Your task to perform on an android device: see sites visited before in the chrome app Image 0: 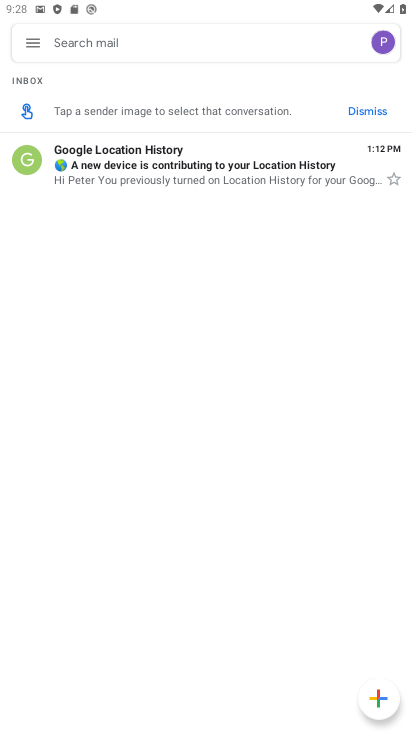
Step 0: click (326, 601)
Your task to perform on an android device: see sites visited before in the chrome app Image 1: 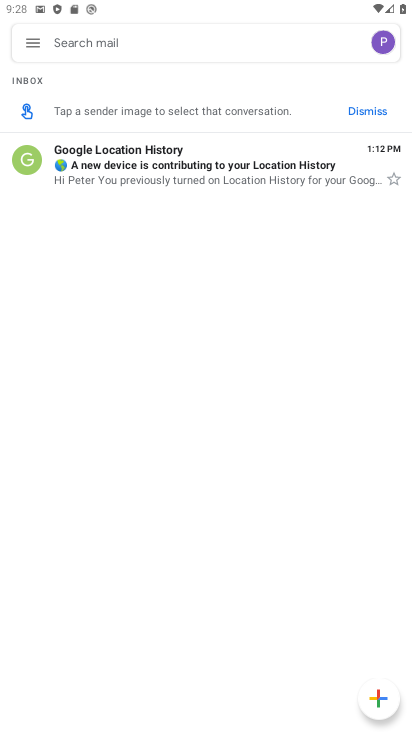
Step 1: press home button
Your task to perform on an android device: see sites visited before in the chrome app Image 2: 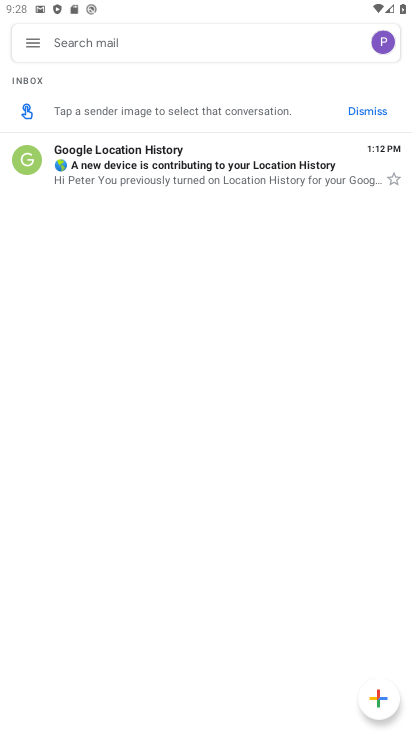
Step 2: click (326, 601)
Your task to perform on an android device: see sites visited before in the chrome app Image 3: 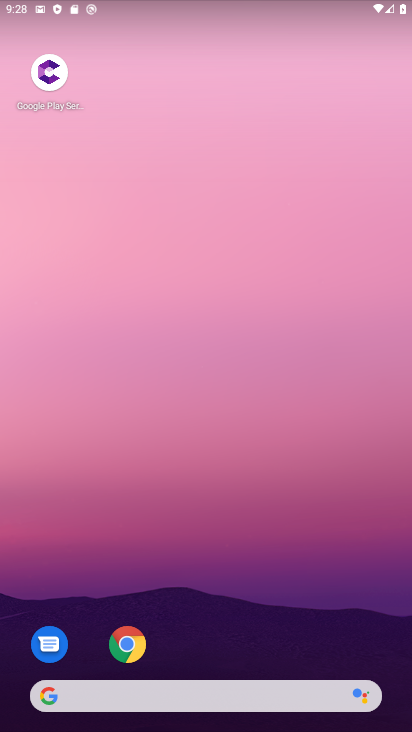
Step 3: drag from (184, 51) to (47, 52)
Your task to perform on an android device: see sites visited before in the chrome app Image 4: 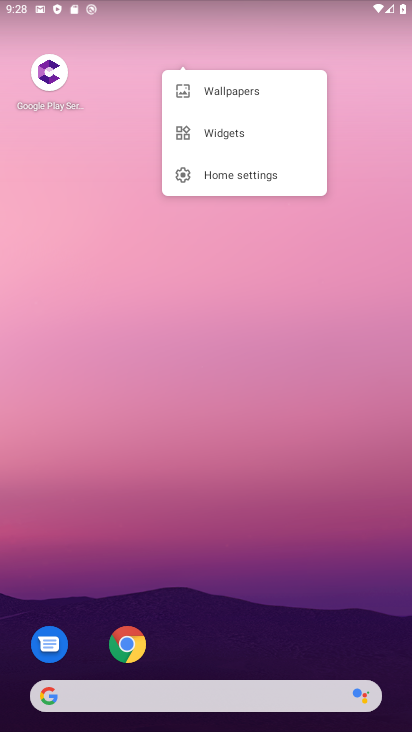
Step 4: click (274, 650)
Your task to perform on an android device: see sites visited before in the chrome app Image 5: 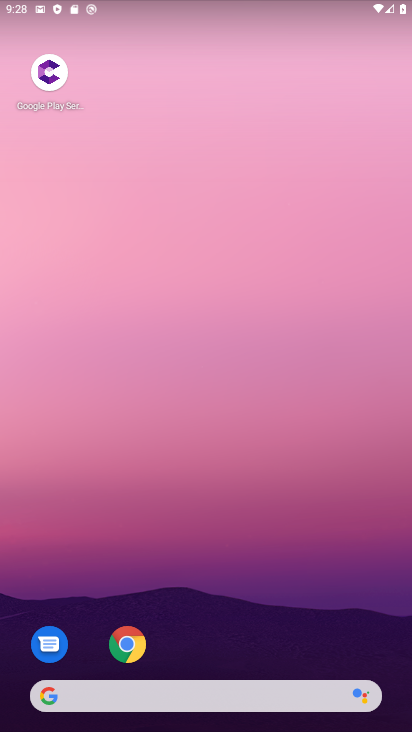
Step 5: click (122, 653)
Your task to perform on an android device: see sites visited before in the chrome app Image 6: 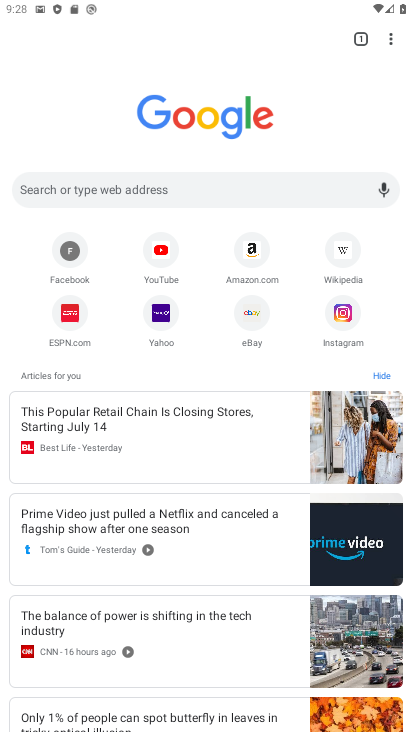
Step 6: click (386, 36)
Your task to perform on an android device: see sites visited before in the chrome app Image 7: 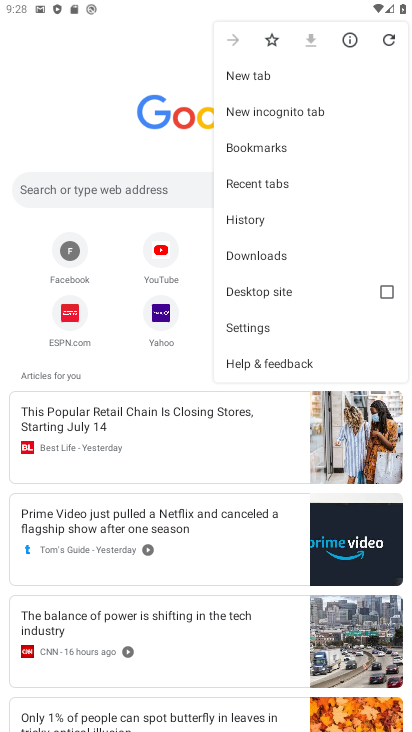
Step 7: click (264, 215)
Your task to perform on an android device: see sites visited before in the chrome app Image 8: 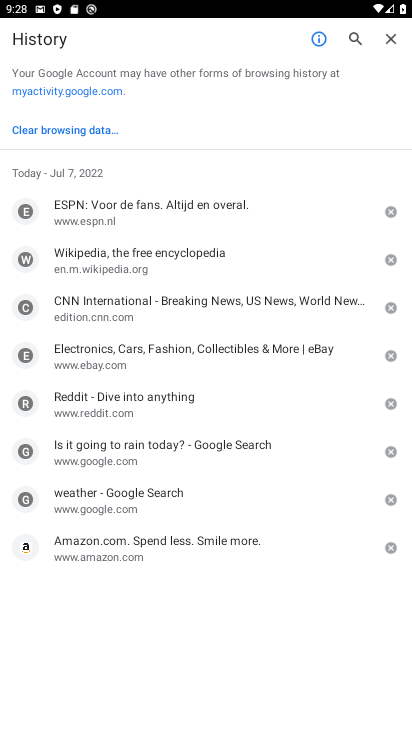
Step 8: task complete